Your task to perform on an android device: set default search engine in the chrome app Image 0: 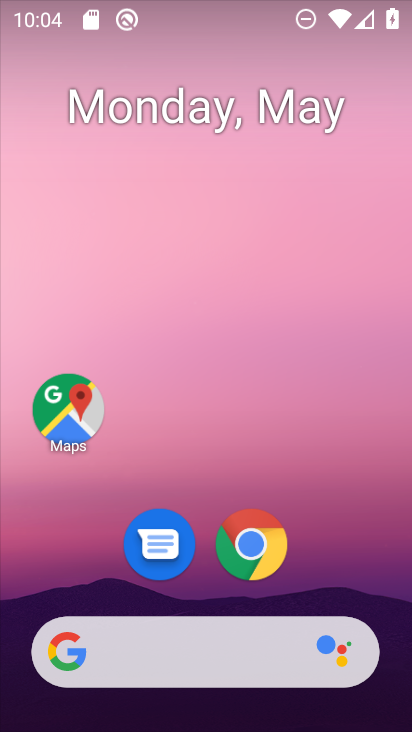
Step 0: click (256, 560)
Your task to perform on an android device: set default search engine in the chrome app Image 1: 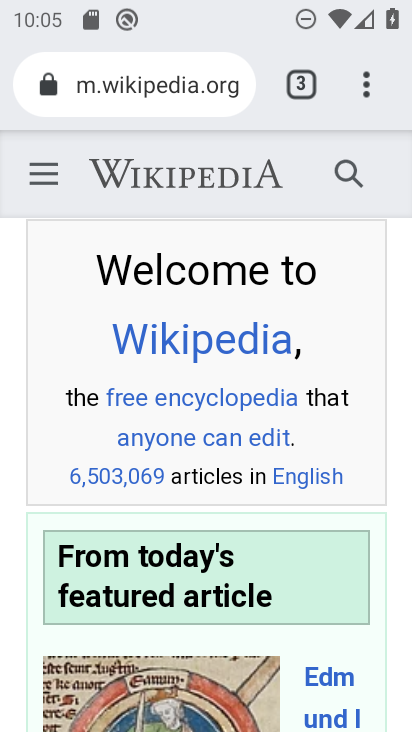
Step 1: click (367, 82)
Your task to perform on an android device: set default search engine in the chrome app Image 2: 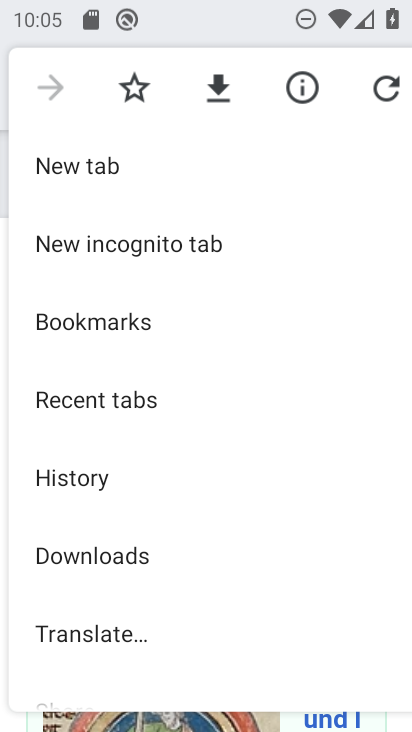
Step 2: drag from (185, 637) to (208, 198)
Your task to perform on an android device: set default search engine in the chrome app Image 3: 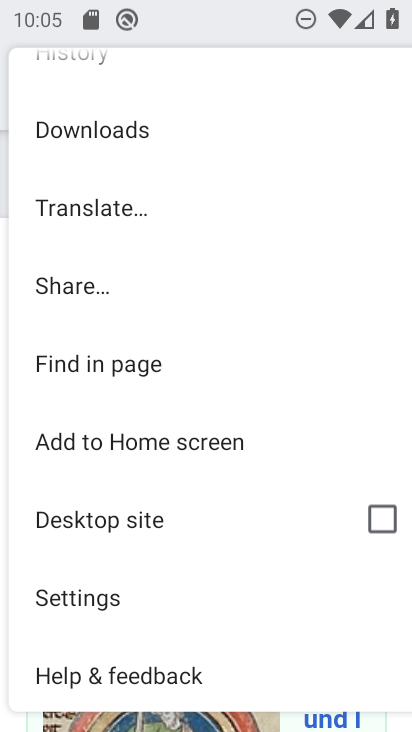
Step 3: click (96, 598)
Your task to perform on an android device: set default search engine in the chrome app Image 4: 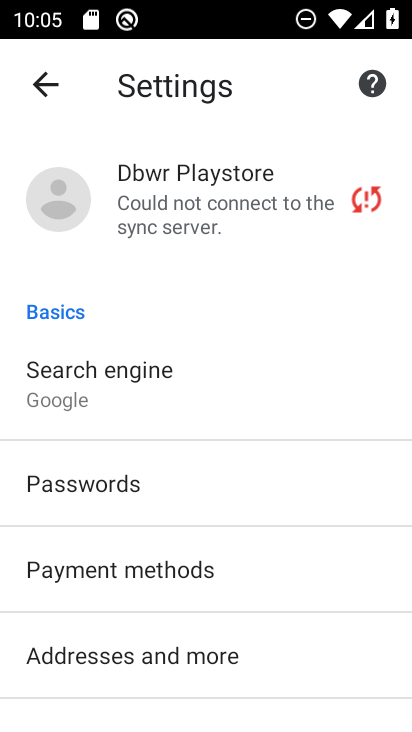
Step 4: click (73, 400)
Your task to perform on an android device: set default search engine in the chrome app Image 5: 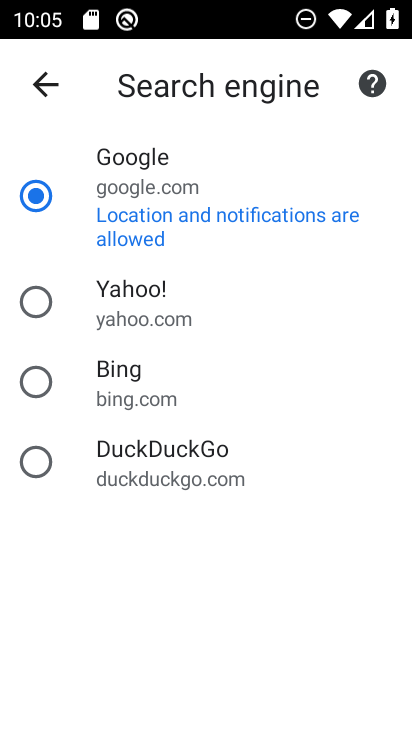
Step 5: click (36, 455)
Your task to perform on an android device: set default search engine in the chrome app Image 6: 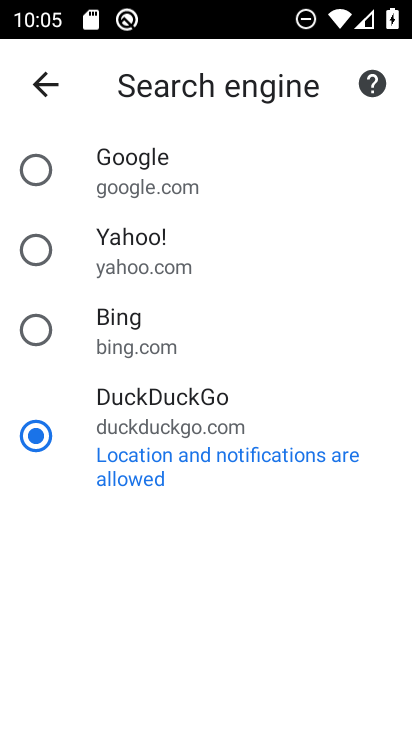
Step 6: task complete